Your task to perform on an android device: What's on the menu at Papa John's? Image 0: 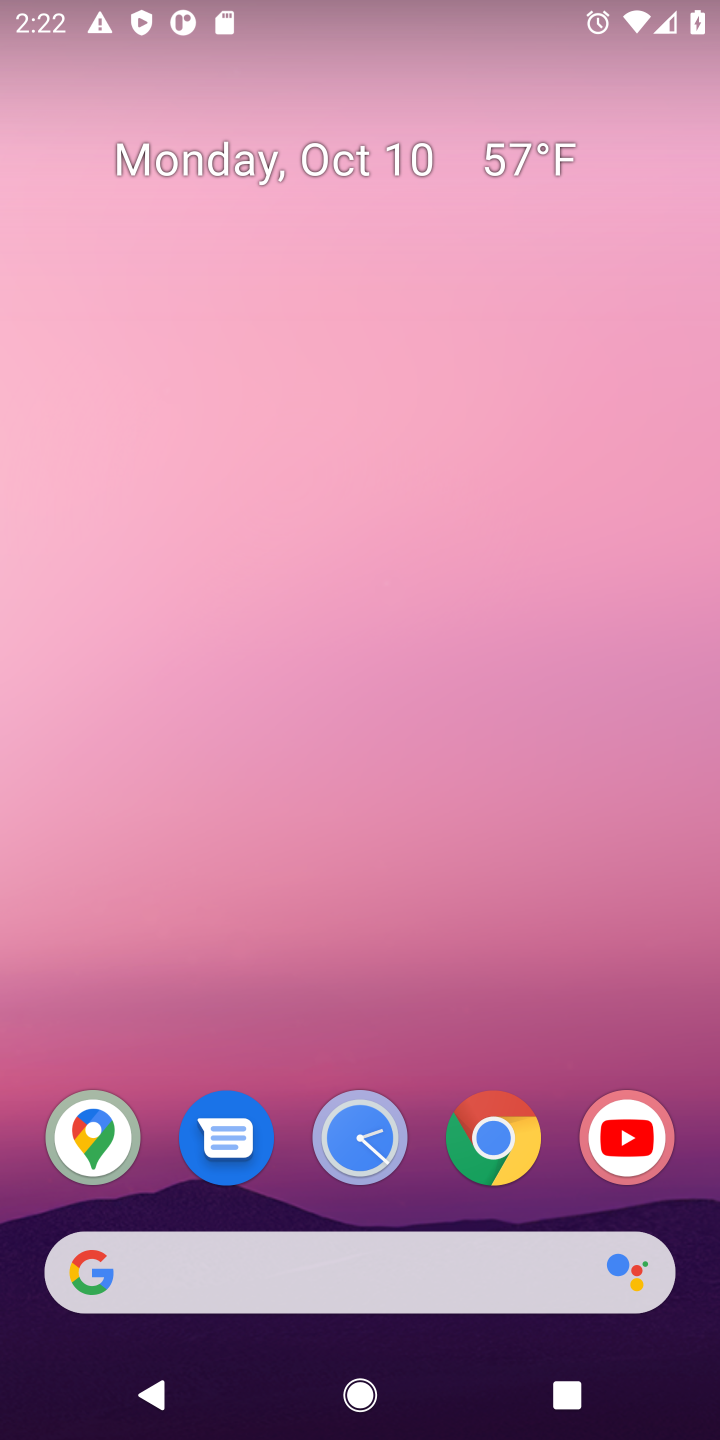
Step 0: click (230, 1265)
Your task to perform on an android device: What's on the menu at Papa John's? Image 1: 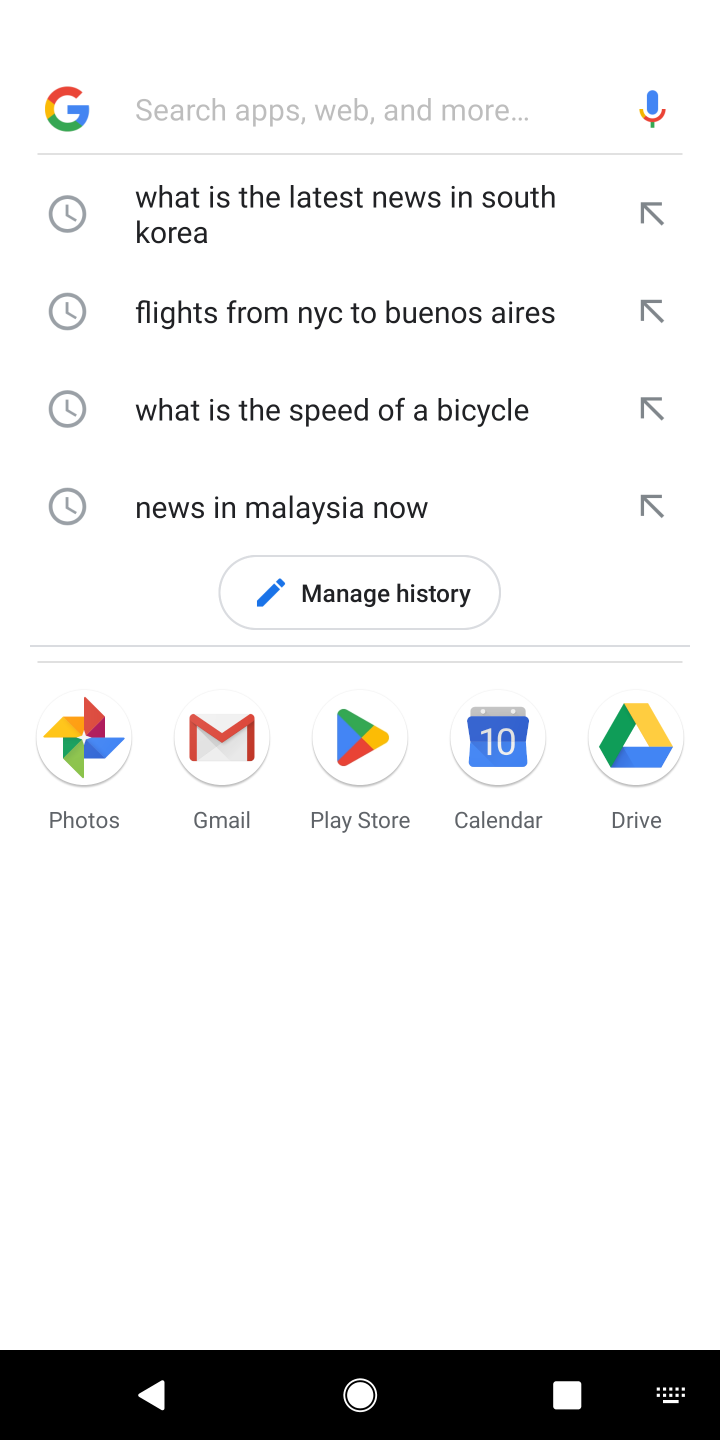
Step 1: type "whats on the menu at papa johns?"
Your task to perform on an android device: What's on the menu at Papa John's? Image 2: 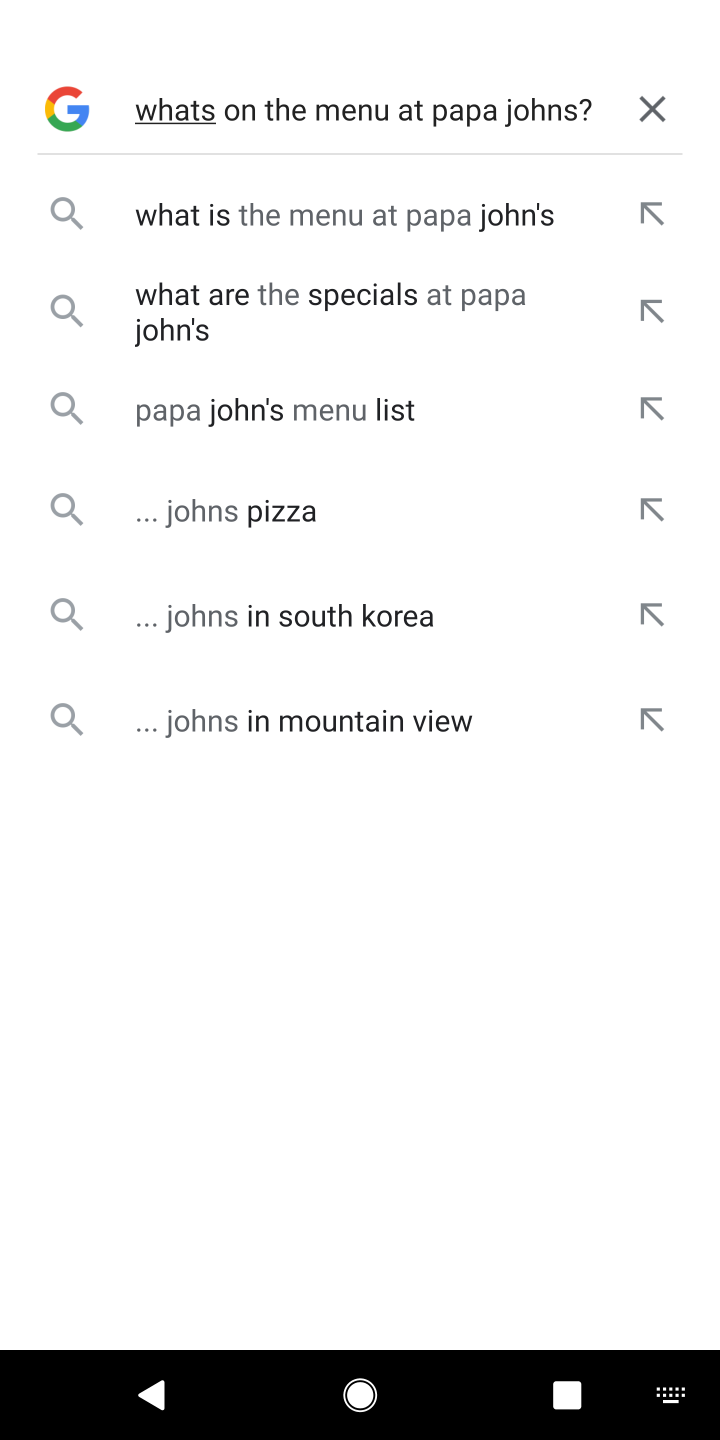
Step 2: click (385, 213)
Your task to perform on an android device: What's on the menu at Papa John's? Image 3: 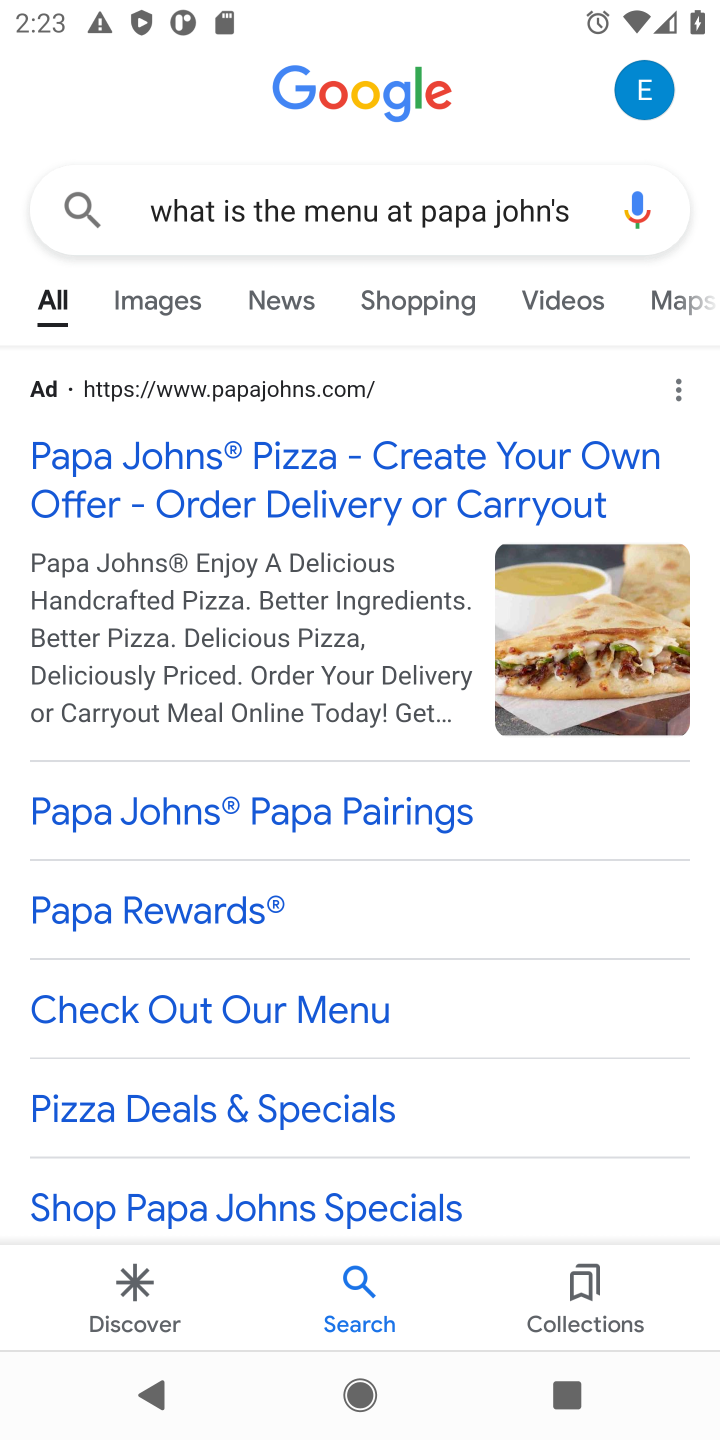
Step 3: click (350, 477)
Your task to perform on an android device: What's on the menu at Papa John's? Image 4: 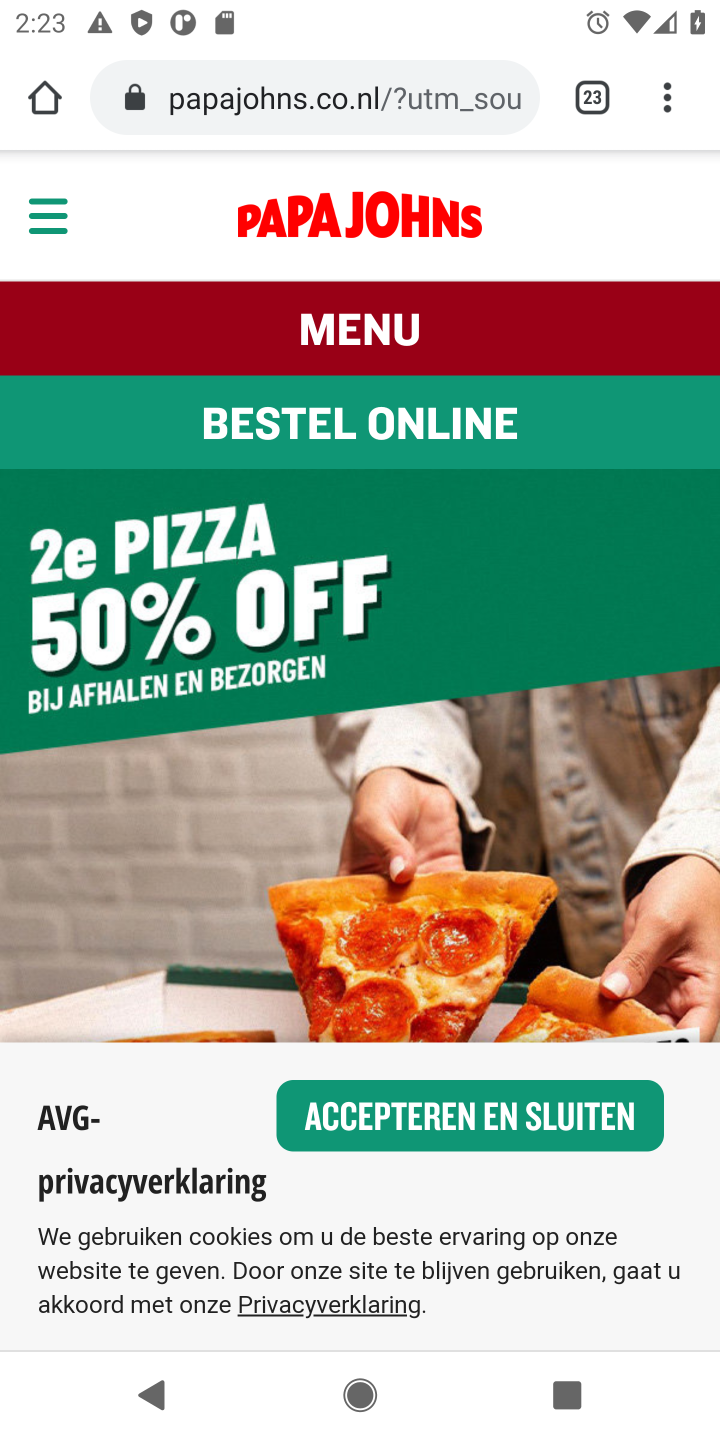
Step 4: drag from (551, 920) to (0, 27)
Your task to perform on an android device: What's on the menu at Papa John's? Image 5: 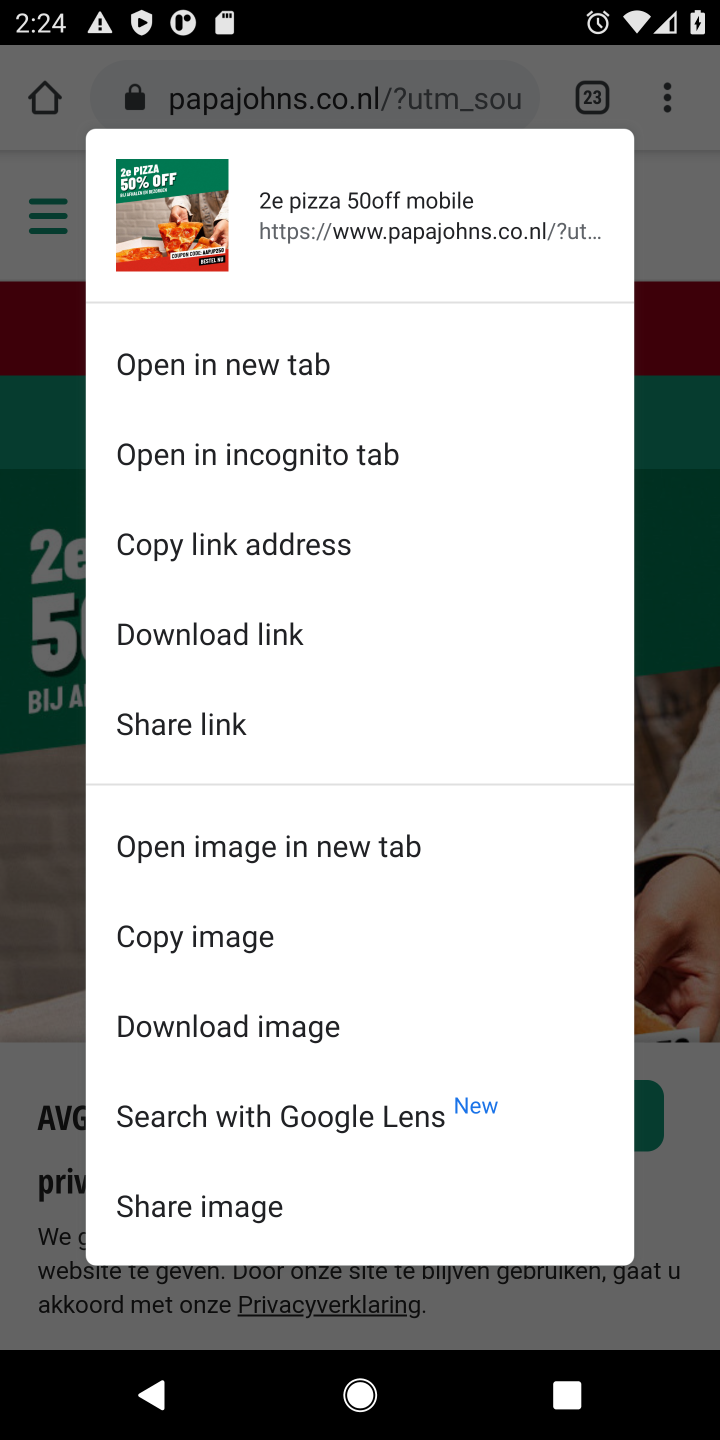
Step 5: click (660, 481)
Your task to perform on an android device: What's on the menu at Papa John's? Image 6: 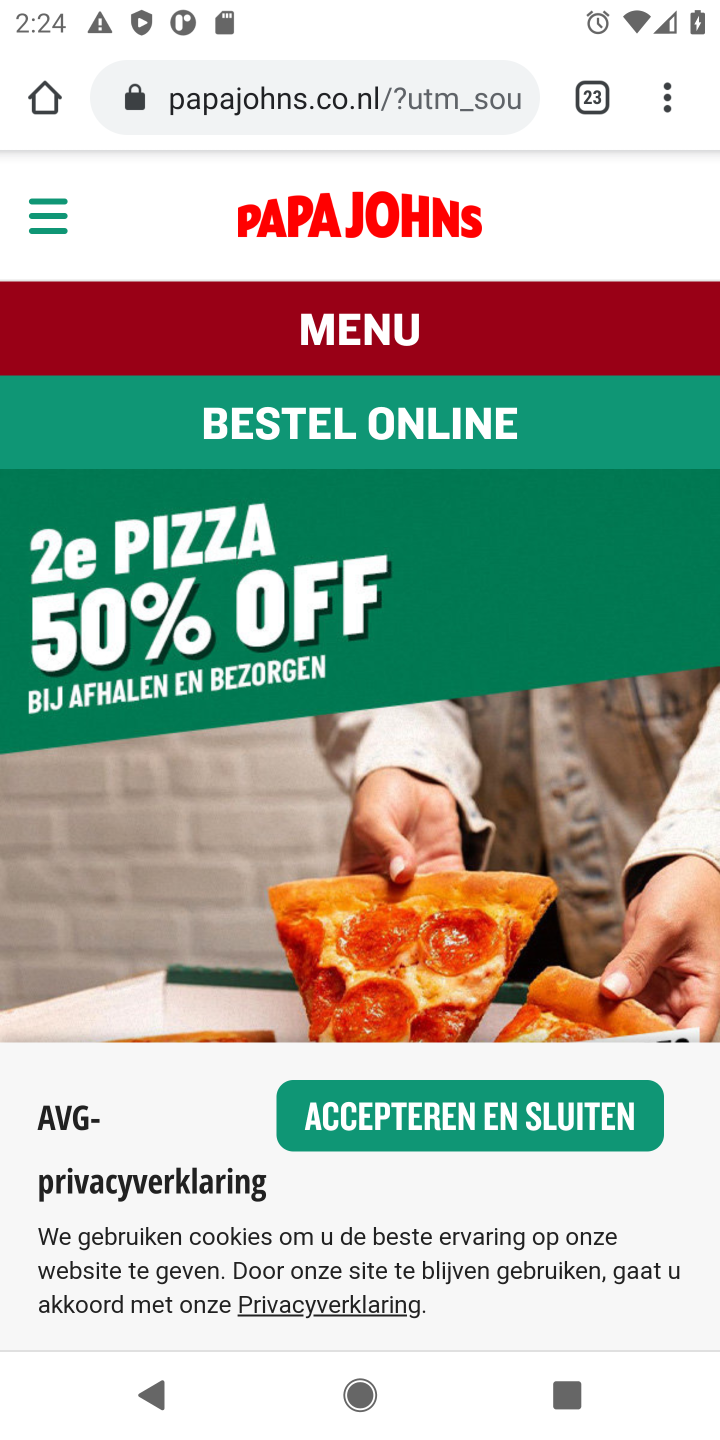
Step 6: task complete